Your task to perform on an android device: create a new album in the google photos Image 0: 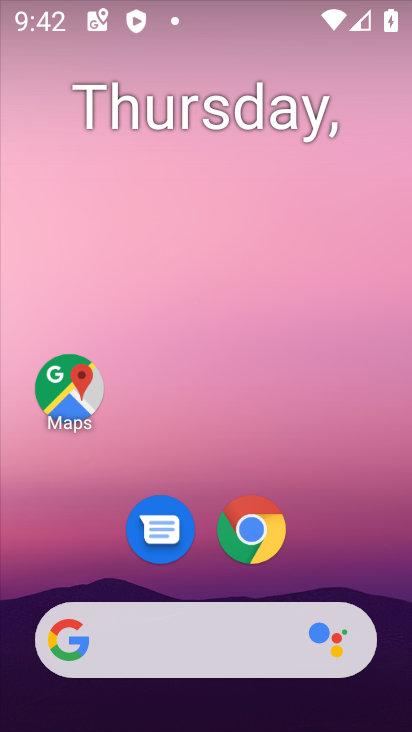
Step 0: drag from (256, 705) to (228, 9)
Your task to perform on an android device: create a new album in the google photos Image 1: 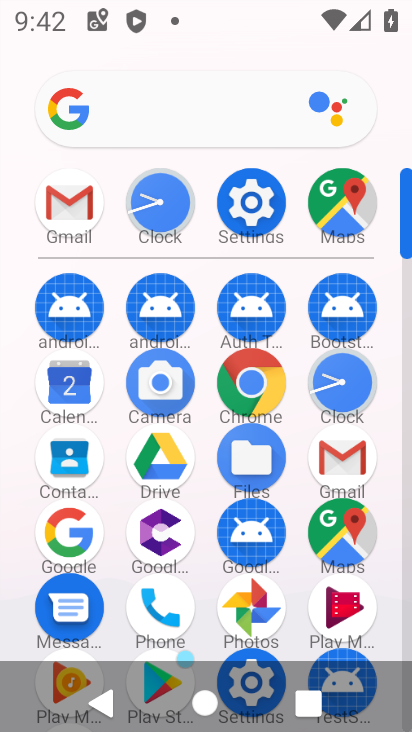
Step 1: click (250, 606)
Your task to perform on an android device: create a new album in the google photos Image 2: 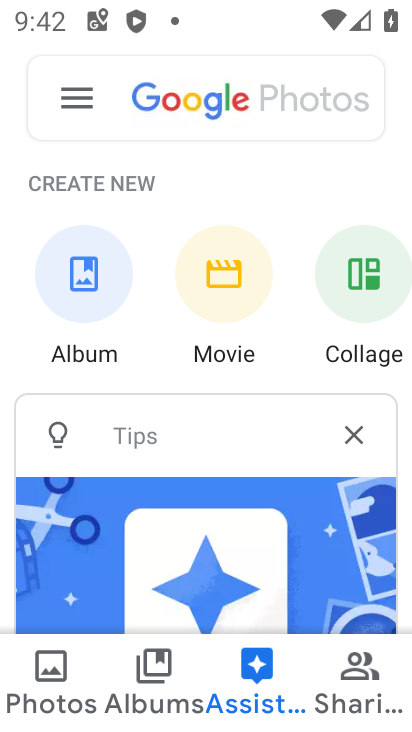
Step 2: click (52, 669)
Your task to perform on an android device: create a new album in the google photos Image 3: 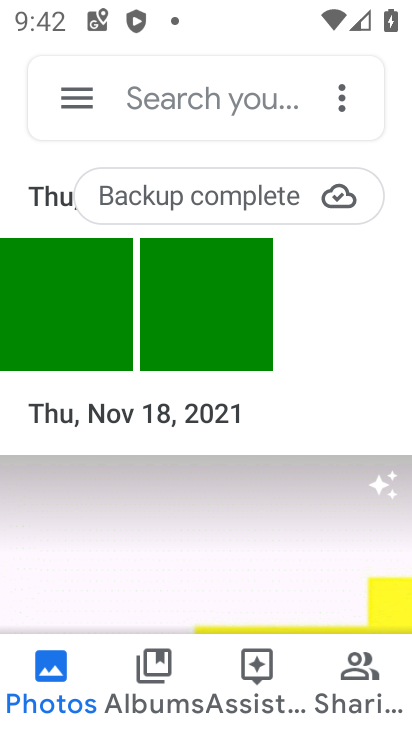
Step 3: click (220, 326)
Your task to perform on an android device: create a new album in the google photos Image 4: 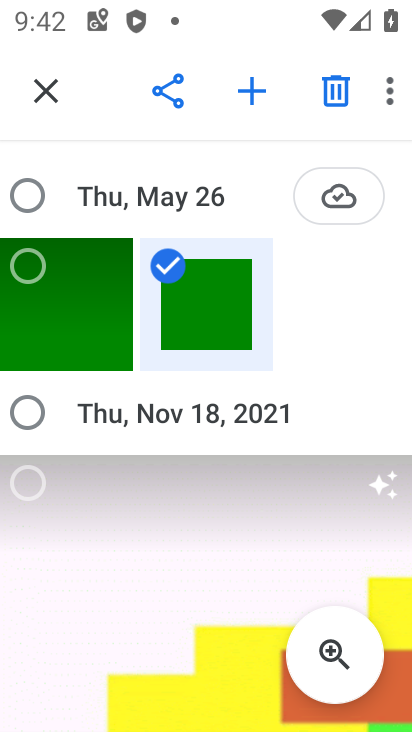
Step 4: click (251, 83)
Your task to perform on an android device: create a new album in the google photos Image 5: 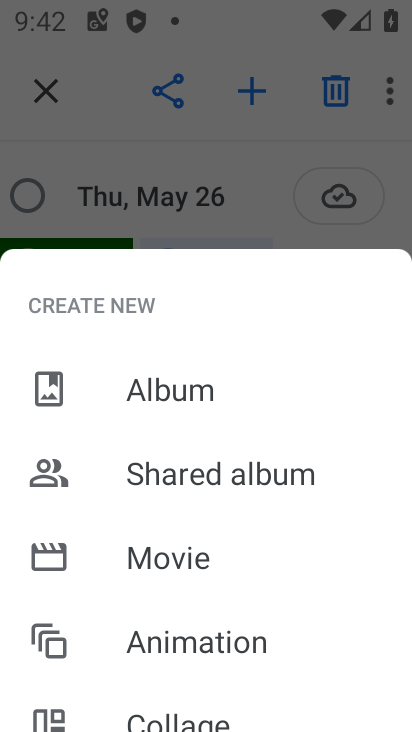
Step 5: click (174, 396)
Your task to perform on an android device: create a new album in the google photos Image 6: 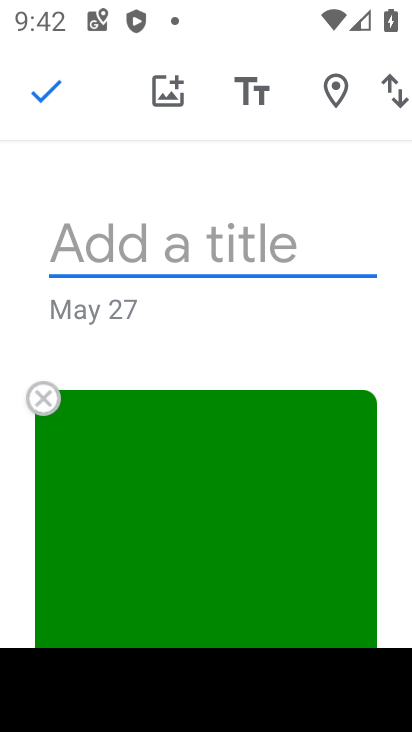
Step 6: type "mnkj"
Your task to perform on an android device: create a new album in the google photos Image 7: 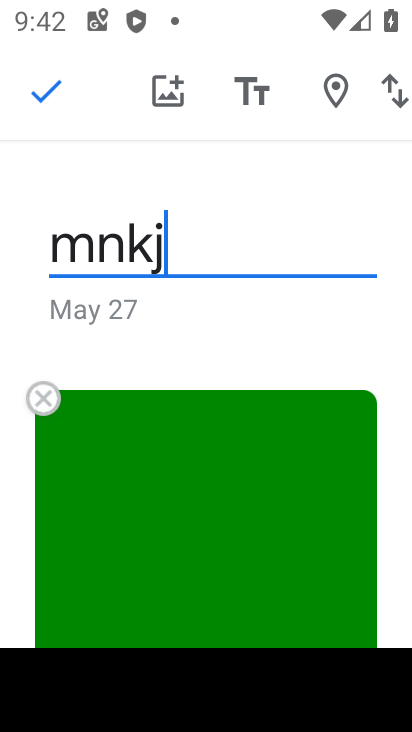
Step 7: click (32, 83)
Your task to perform on an android device: create a new album in the google photos Image 8: 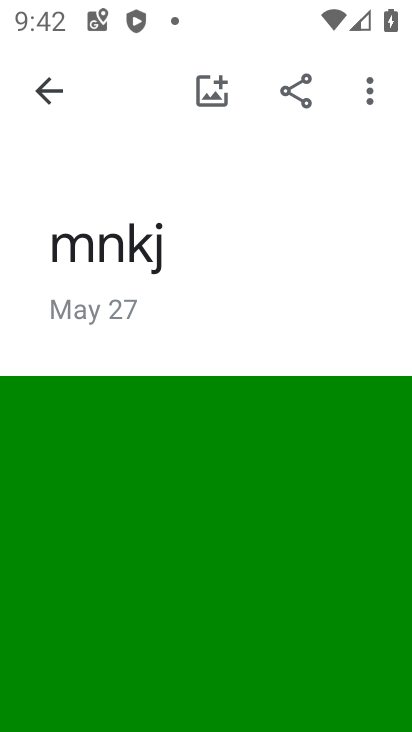
Step 8: task complete